Your task to perform on an android device: Open the web browser Image 0: 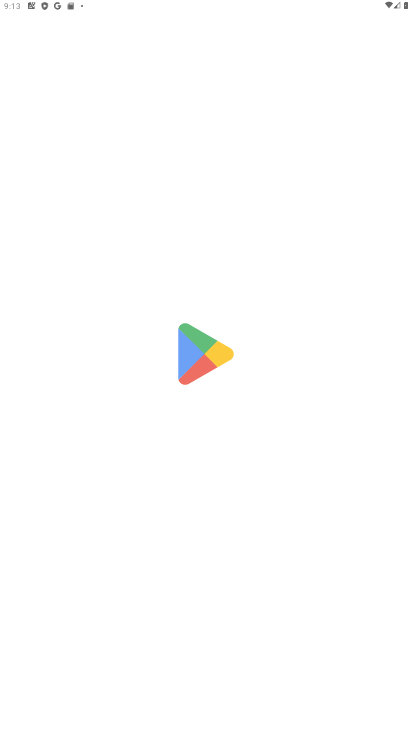
Step 0: drag from (384, 692) to (322, 110)
Your task to perform on an android device: Open the web browser Image 1: 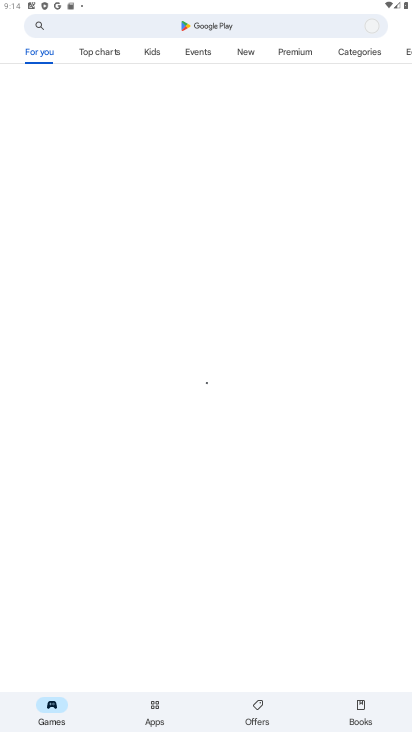
Step 1: press home button
Your task to perform on an android device: Open the web browser Image 2: 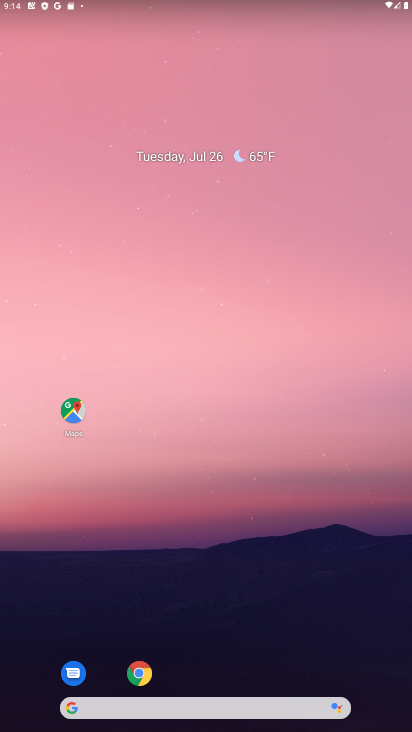
Step 2: click (137, 674)
Your task to perform on an android device: Open the web browser Image 3: 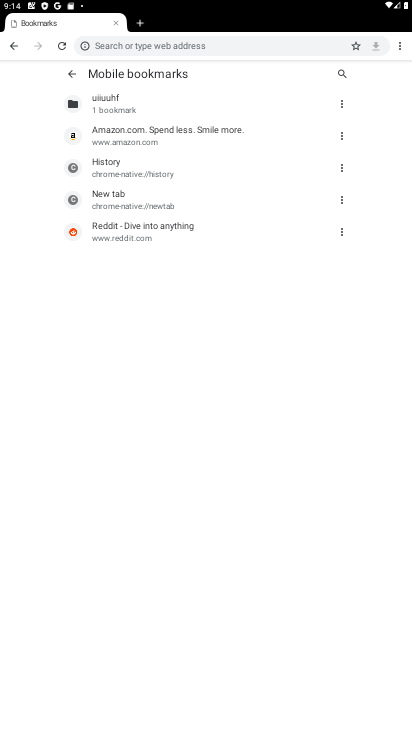
Step 3: task complete